Your task to perform on an android device: turn smart compose on in the gmail app Image 0: 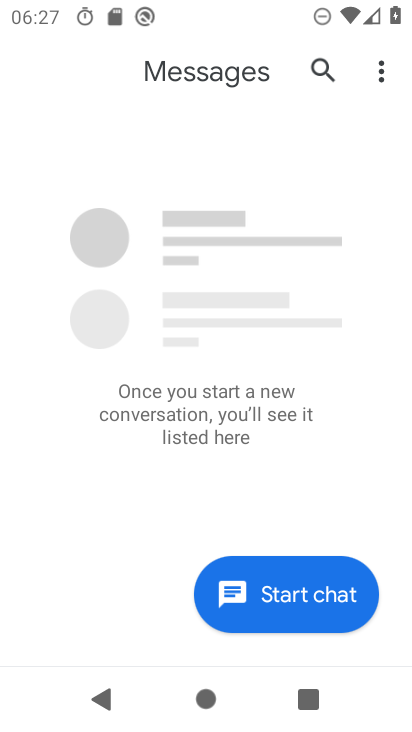
Step 0: press home button
Your task to perform on an android device: turn smart compose on in the gmail app Image 1: 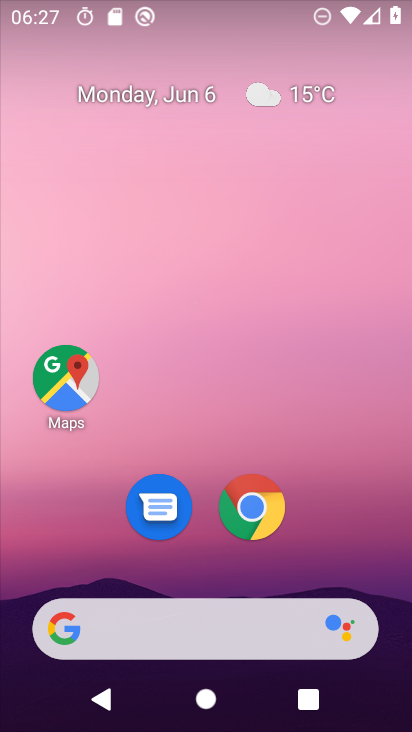
Step 1: drag from (195, 582) to (211, 119)
Your task to perform on an android device: turn smart compose on in the gmail app Image 2: 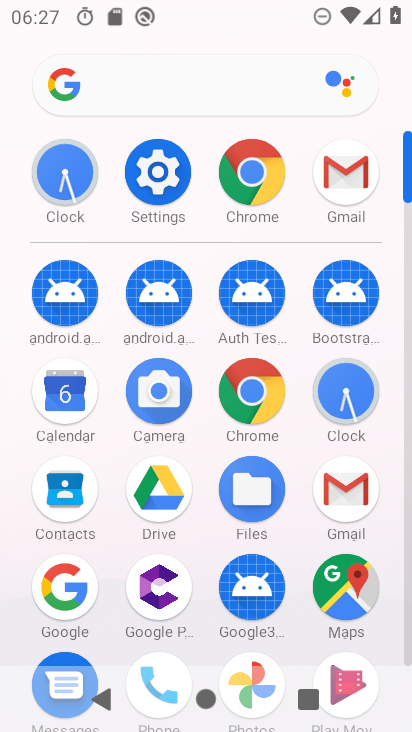
Step 2: click (330, 175)
Your task to perform on an android device: turn smart compose on in the gmail app Image 3: 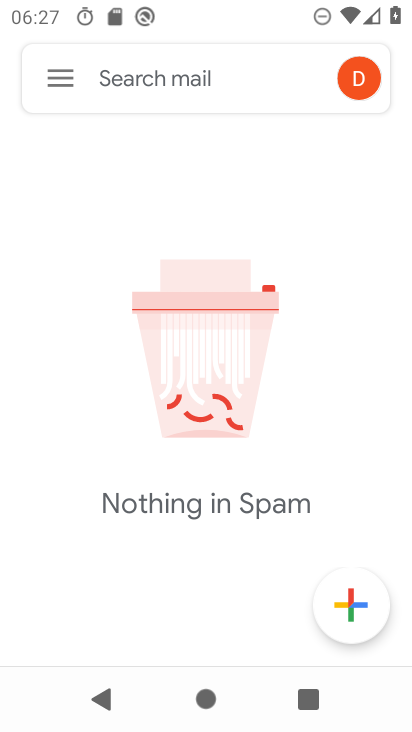
Step 3: click (60, 90)
Your task to perform on an android device: turn smart compose on in the gmail app Image 4: 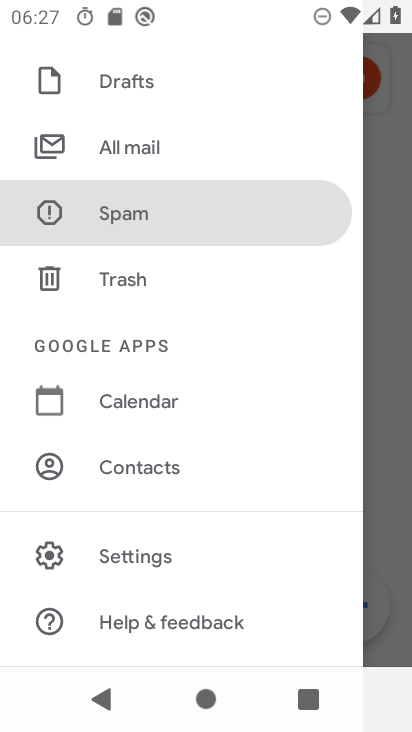
Step 4: click (131, 558)
Your task to perform on an android device: turn smart compose on in the gmail app Image 5: 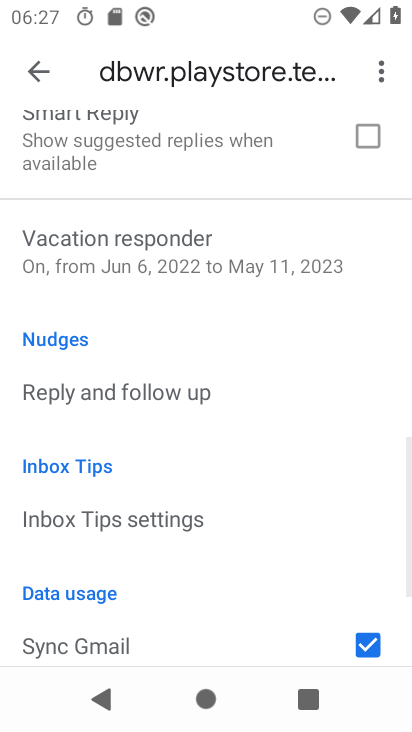
Step 5: task complete